Your task to perform on an android device: turn on improve location accuracy Image 0: 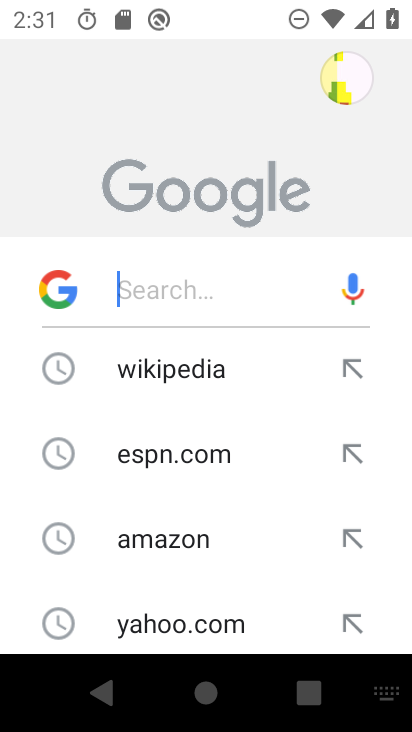
Step 0: press home button
Your task to perform on an android device: turn on improve location accuracy Image 1: 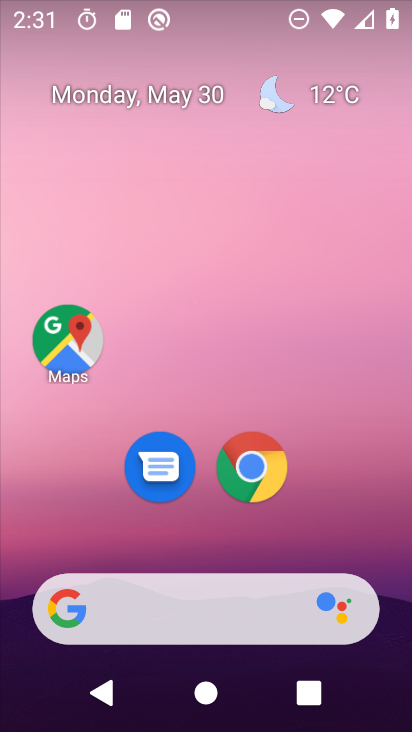
Step 1: click (259, 468)
Your task to perform on an android device: turn on improve location accuracy Image 2: 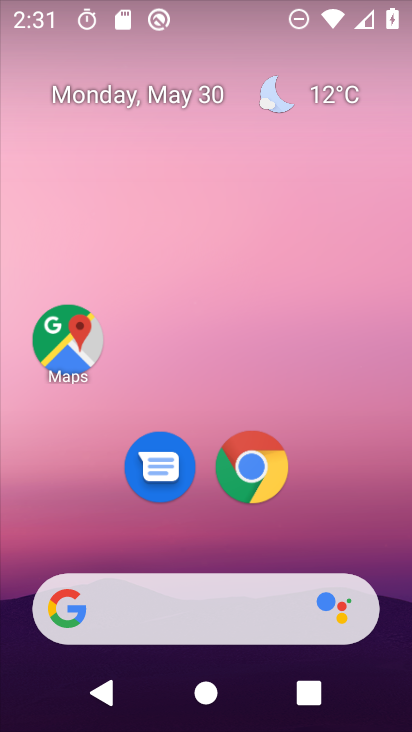
Step 2: click (259, 468)
Your task to perform on an android device: turn on improve location accuracy Image 3: 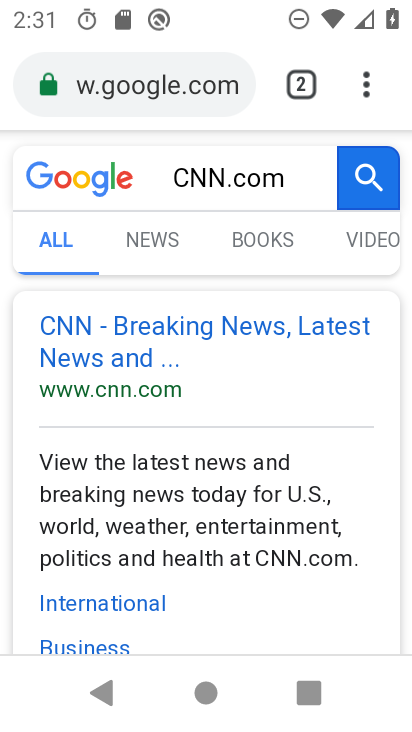
Step 3: press home button
Your task to perform on an android device: turn on improve location accuracy Image 4: 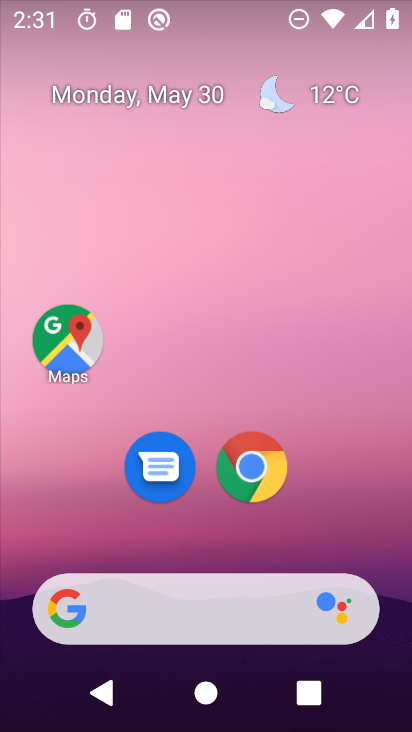
Step 4: drag from (382, 685) to (356, 205)
Your task to perform on an android device: turn on improve location accuracy Image 5: 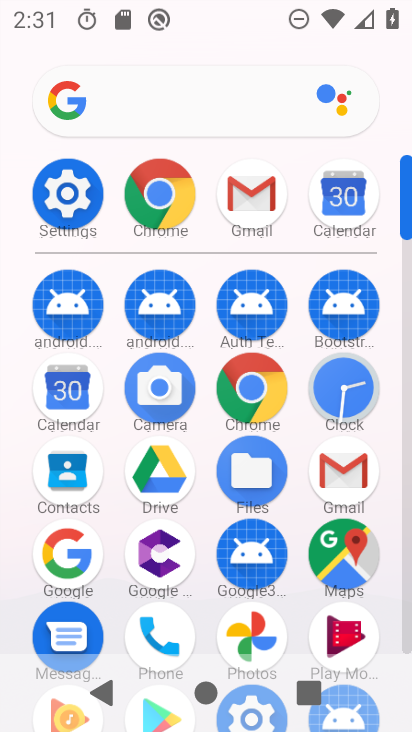
Step 5: click (57, 187)
Your task to perform on an android device: turn on improve location accuracy Image 6: 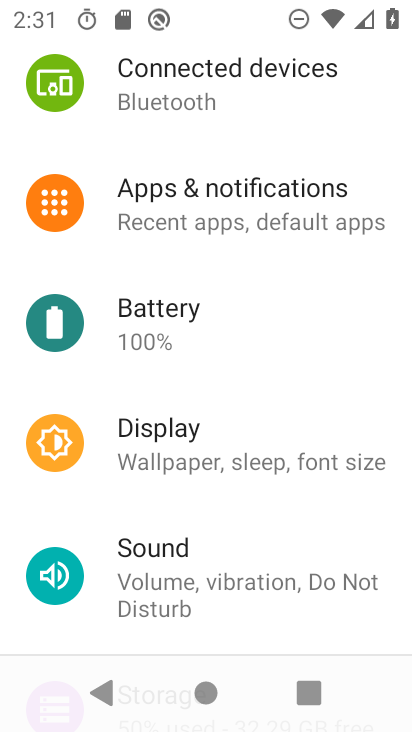
Step 6: drag from (265, 629) to (256, 154)
Your task to perform on an android device: turn on improve location accuracy Image 7: 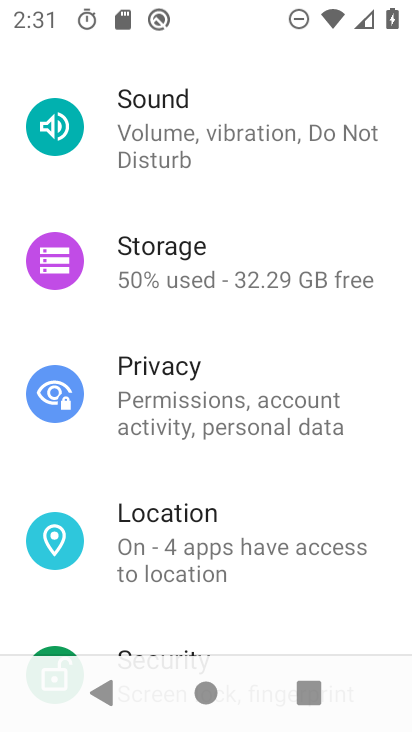
Step 7: click (132, 533)
Your task to perform on an android device: turn on improve location accuracy Image 8: 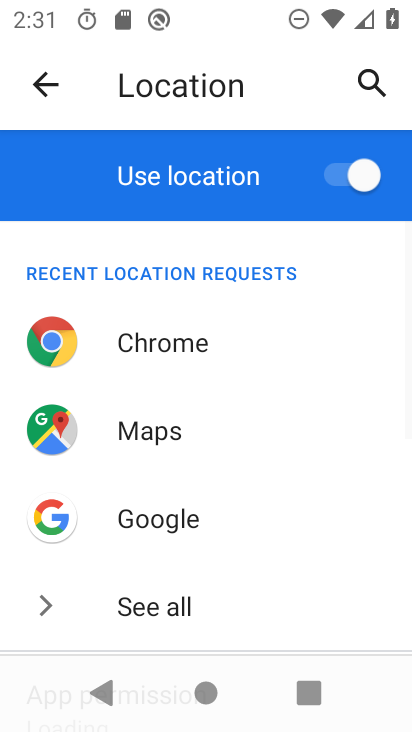
Step 8: drag from (267, 616) to (254, 270)
Your task to perform on an android device: turn on improve location accuracy Image 9: 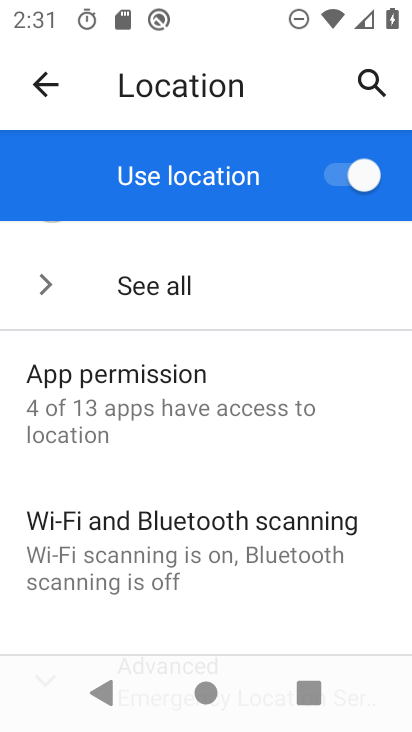
Step 9: drag from (190, 570) to (212, 271)
Your task to perform on an android device: turn on improve location accuracy Image 10: 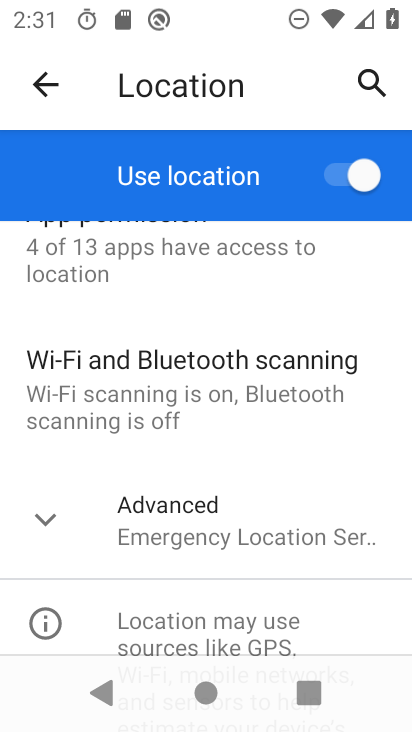
Step 10: click (40, 516)
Your task to perform on an android device: turn on improve location accuracy Image 11: 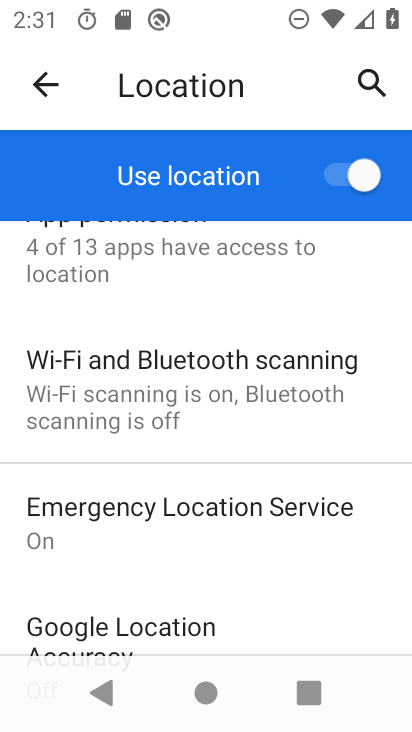
Step 11: drag from (275, 622) to (273, 338)
Your task to perform on an android device: turn on improve location accuracy Image 12: 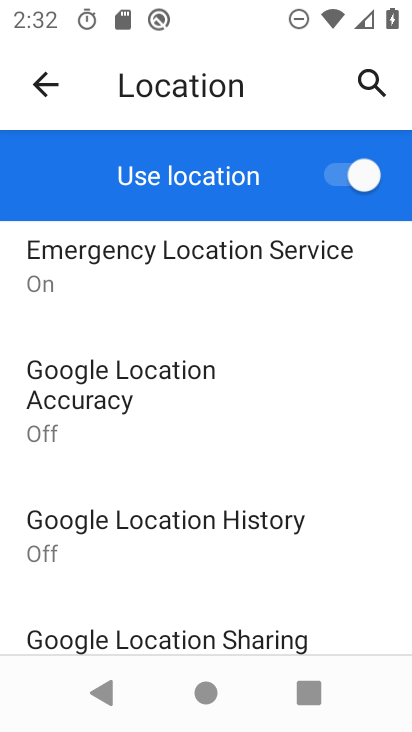
Step 12: click (109, 395)
Your task to perform on an android device: turn on improve location accuracy Image 13: 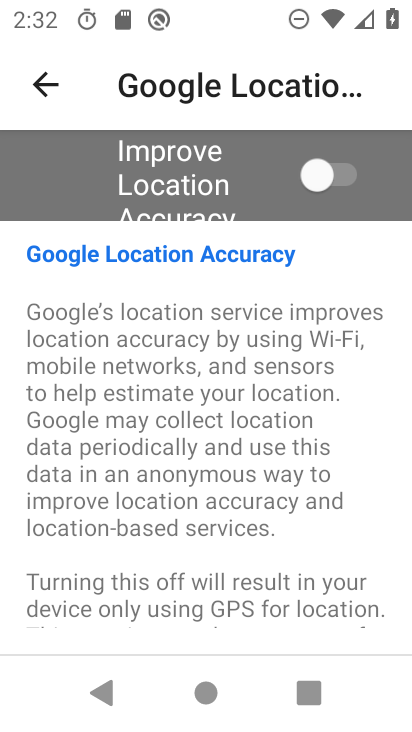
Step 13: click (343, 170)
Your task to perform on an android device: turn on improve location accuracy Image 14: 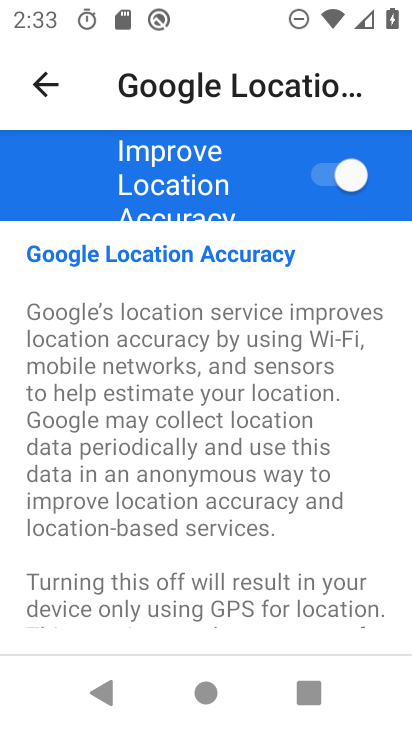
Step 14: task complete